Your task to perform on an android device: Search for seafood restaurants on Google Maps Image 0: 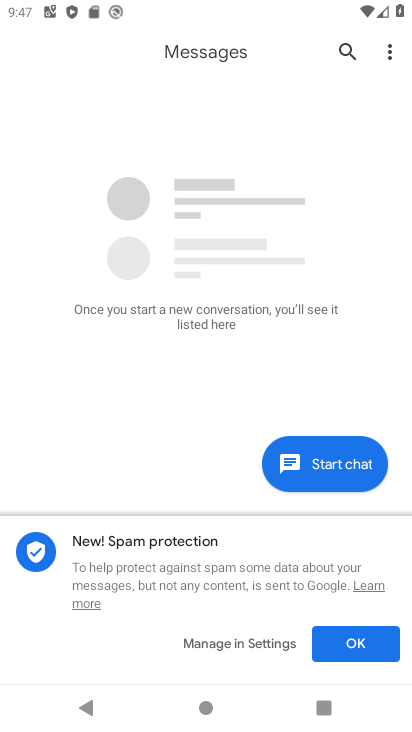
Step 0: press home button
Your task to perform on an android device: Search for seafood restaurants on Google Maps Image 1: 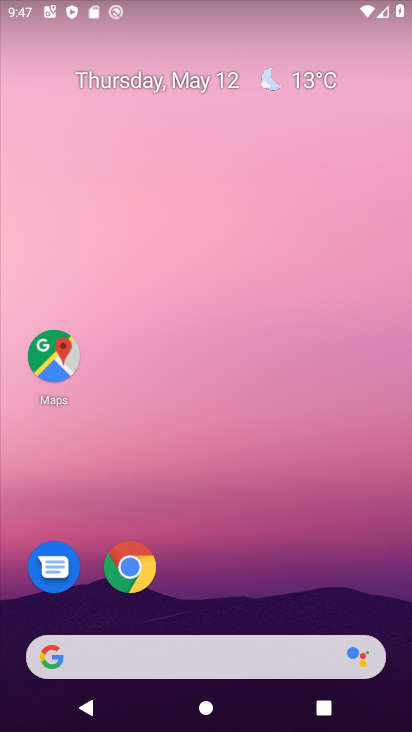
Step 1: click (67, 368)
Your task to perform on an android device: Search for seafood restaurants on Google Maps Image 2: 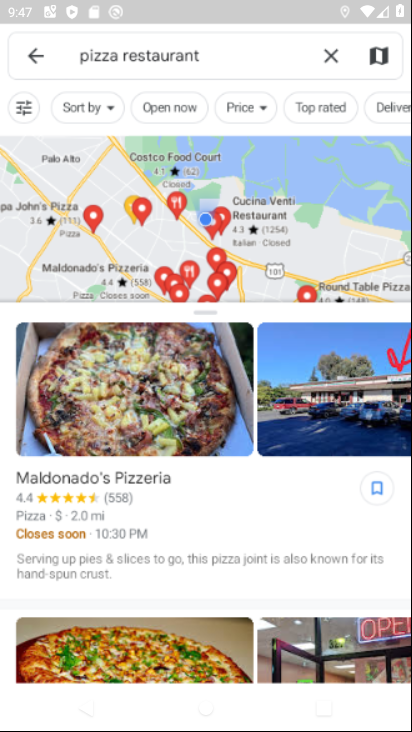
Step 2: click (336, 54)
Your task to perform on an android device: Search for seafood restaurants on Google Maps Image 3: 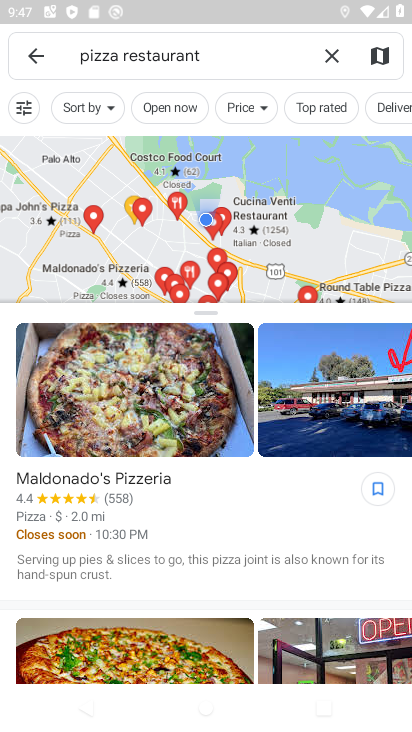
Step 3: click (326, 48)
Your task to perform on an android device: Search for seafood restaurants on Google Maps Image 4: 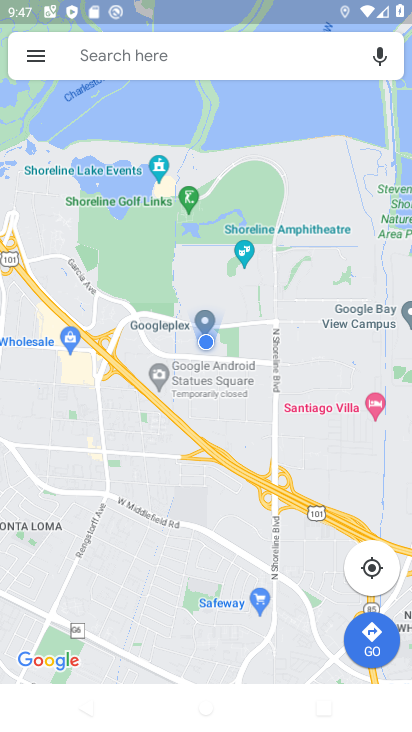
Step 4: click (257, 67)
Your task to perform on an android device: Search for seafood restaurants on Google Maps Image 5: 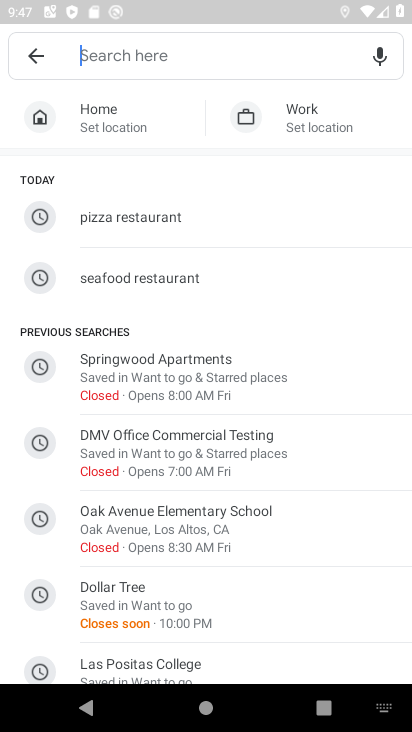
Step 5: click (166, 283)
Your task to perform on an android device: Search for seafood restaurants on Google Maps Image 6: 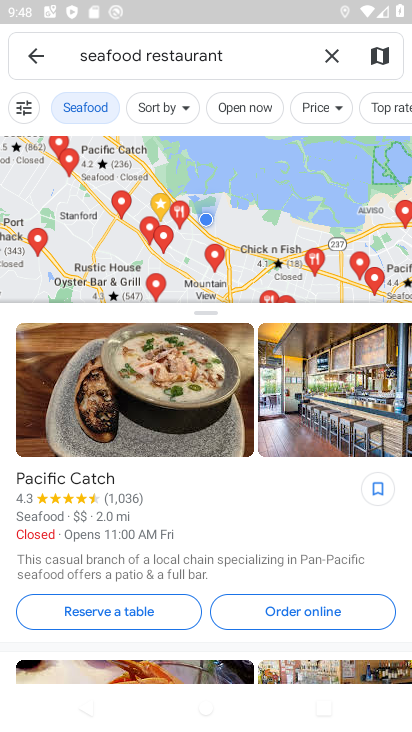
Step 6: task complete